Your task to perform on an android device: turn on improve location accuracy Image 0: 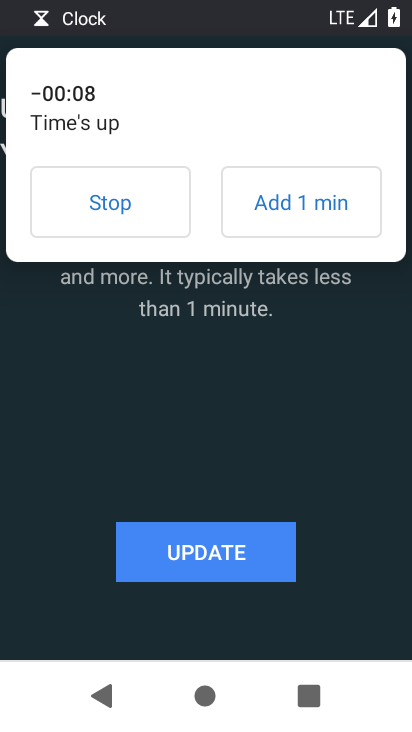
Step 0: press home button
Your task to perform on an android device: turn on improve location accuracy Image 1: 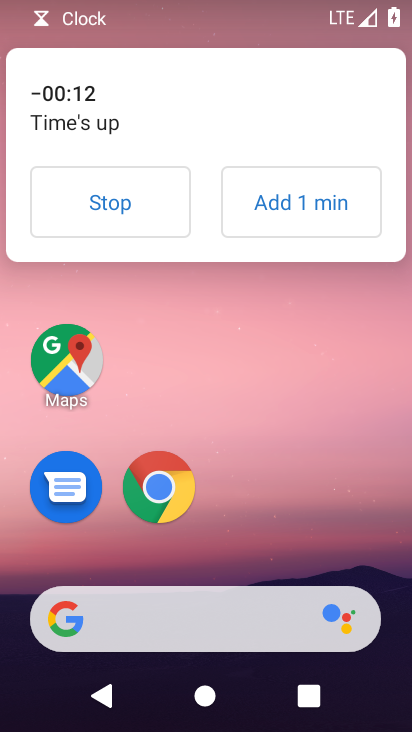
Step 1: drag from (378, 525) to (381, 176)
Your task to perform on an android device: turn on improve location accuracy Image 2: 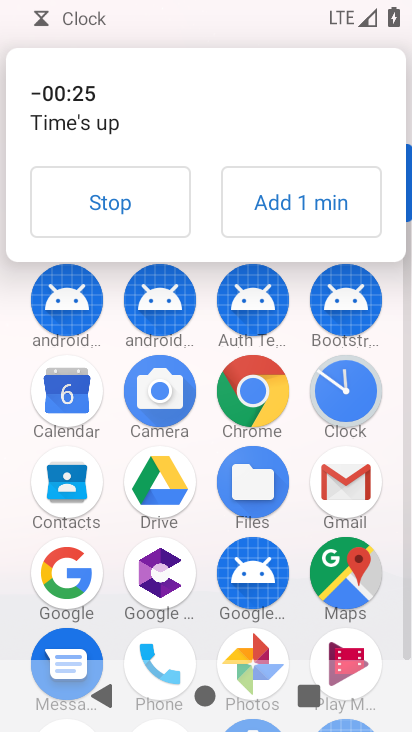
Step 2: drag from (206, 521) to (213, 304)
Your task to perform on an android device: turn on improve location accuracy Image 3: 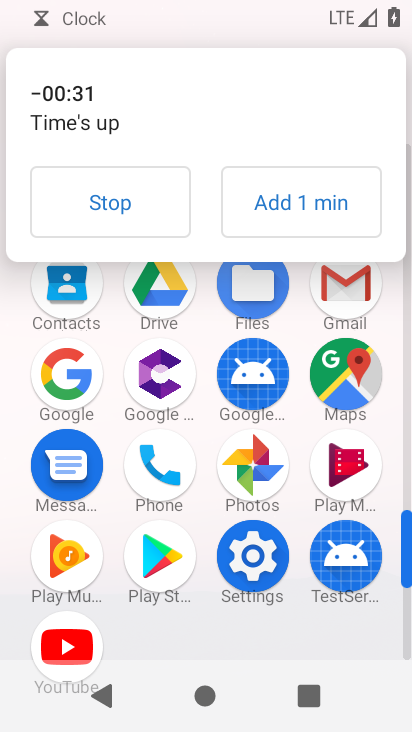
Step 3: click (262, 557)
Your task to perform on an android device: turn on improve location accuracy Image 4: 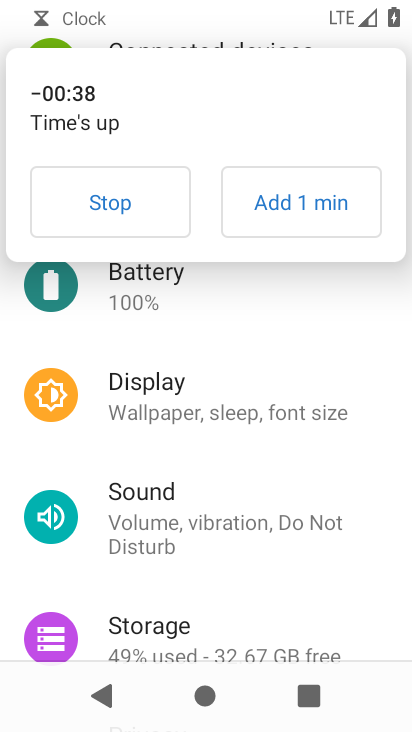
Step 4: drag from (330, 575) to (362, 400)
Your task to perform on an android device: turn on improve location accuracy Image 5: 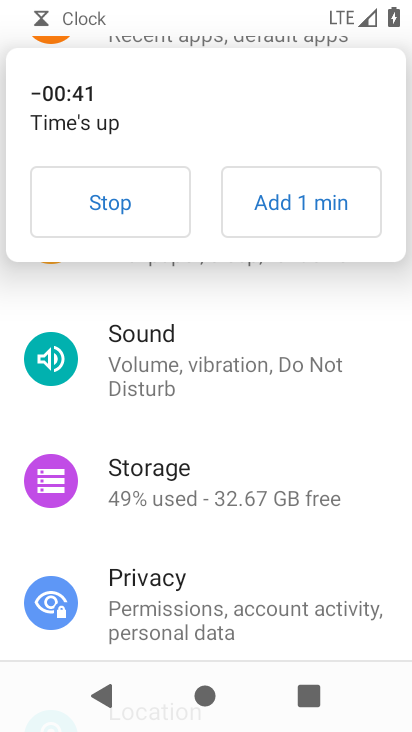
Step 5: drag from (344, 570) to (354, 439)
Your task to perform on an android device: turn on improve location accuracy Image 6: 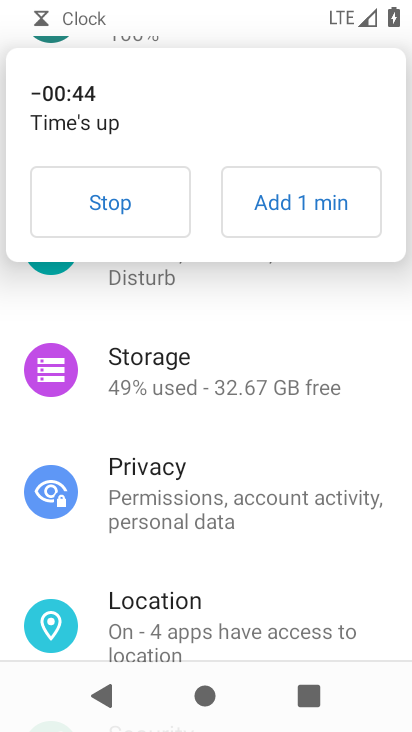
Step 6: drag from (344, 582) to (345, 464)
Your task to perform on an android device: turn on improve location accuracy Image 7: 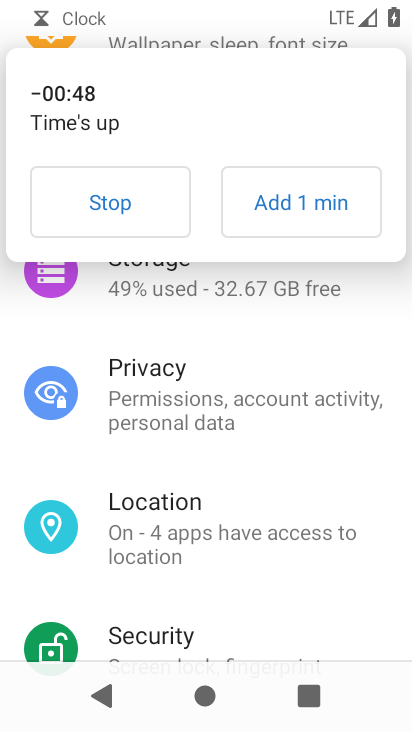
Step 7: drag from (344, 595) to (340, 453)
Your task to perform on an android device: turn on improve location accuracy Image 8: 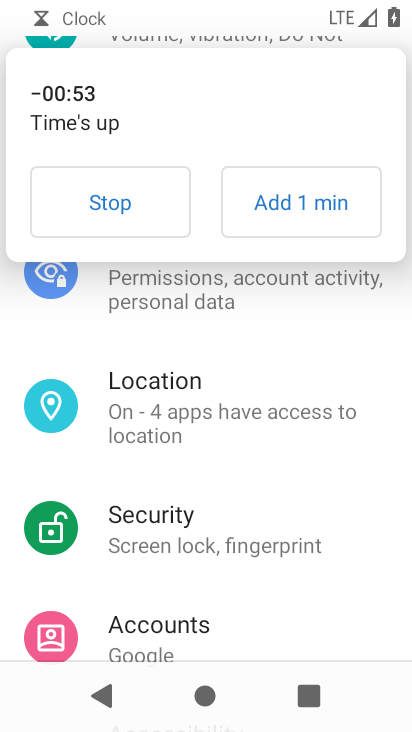
Step 8: click (312, 406)
Your task to perform on an android device: turn on improve location accuracy Image 9: 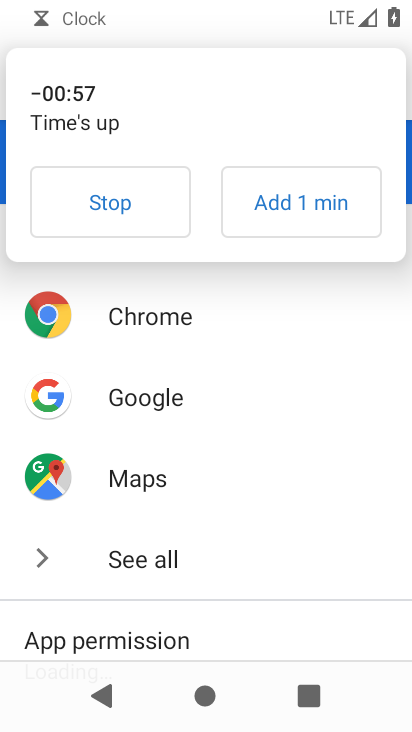
Step 9: drag from (315, 565) to (316, 339)
Your task to perform on an android device: turn on improve location accuracy Image 10: 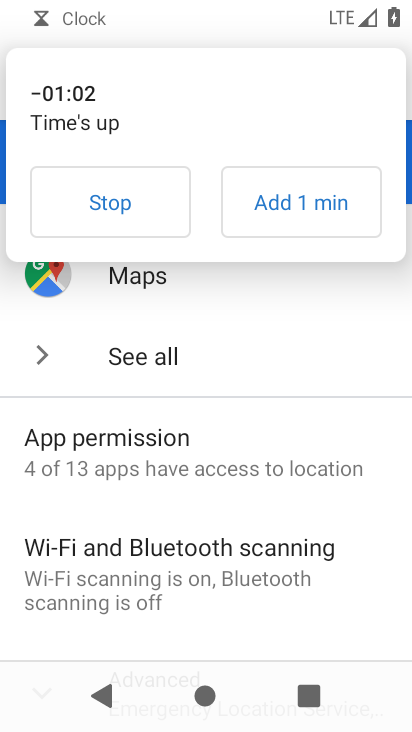
Step 10: drag from (348, 596) to (354, 390)
Your task to perform on an android device: turn on improve location accuracy Image 11: 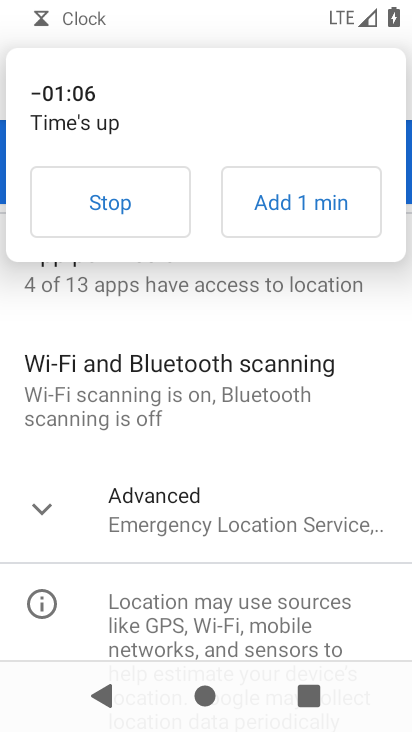
Step 11: click (220, 526)
Your task to perform on an android device: turn on improve location accuracy Image 12: 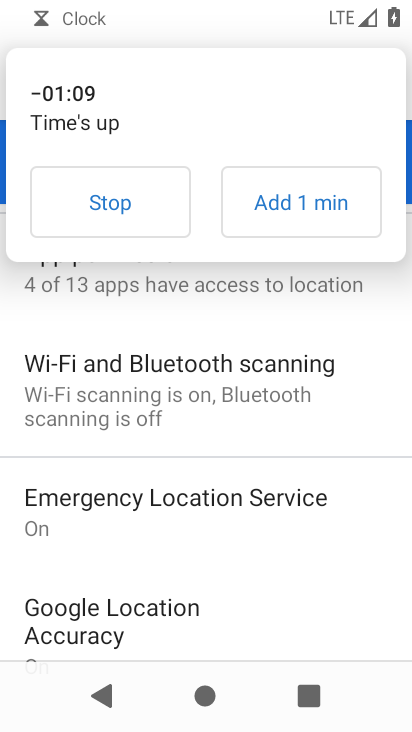
Step 12: drag from (318, 573) to (359, 382)
Your task to perform on an android device: turn on improve location accuracy Image 13: 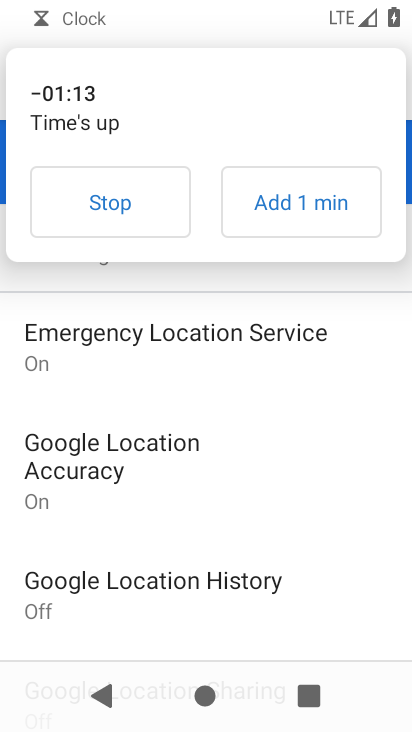
Step 13: drag from (382, 515) to (362, 363)
Your task to perform on an android device: turn on improve location accuracy Image 14: 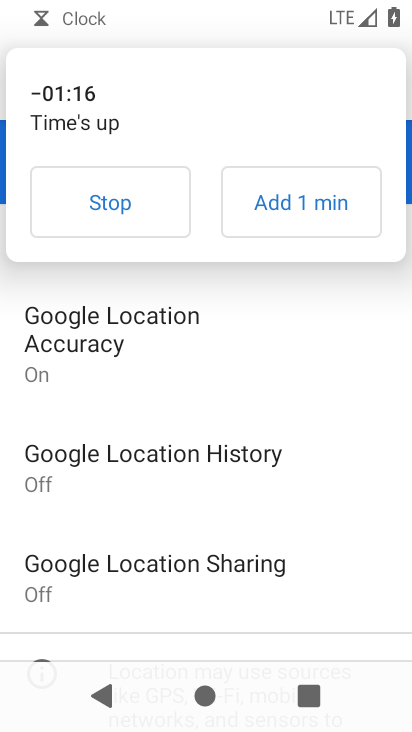
Step 14: drag from (347, 565) to (348, 410)
Your task to perform on an android device: turn on improve location accuracy Image 15: 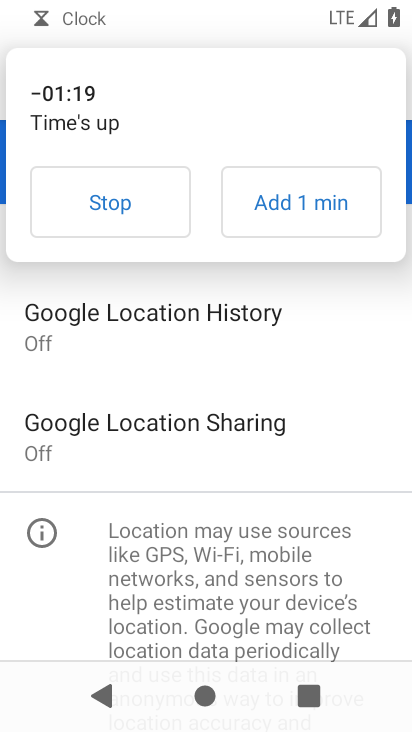
Step 15: drag from (341, 385) to (357, 542)
Your task to perform on an android device: turn on improve location accuracy Image 16: 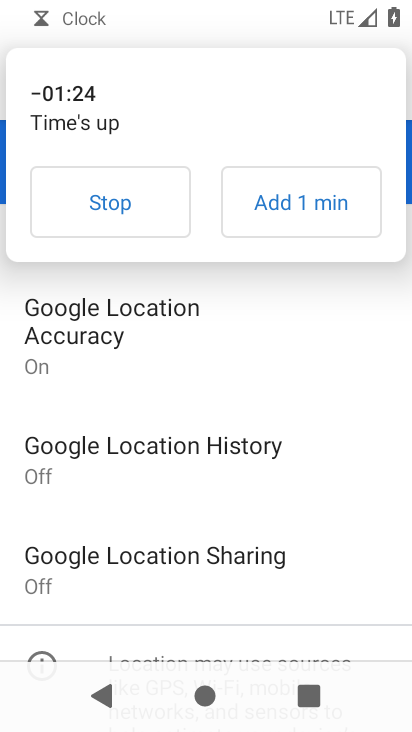
Step 16: click (123, 320)
Your task to perform on an android device: turn on improve location accuracy Image 17: 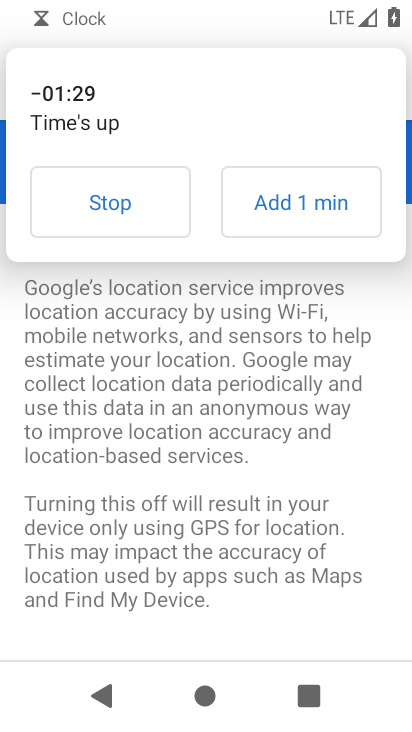
Step 17: click (139, 223)
Your task to perform on an android device: turn on improve location accuracy Image 18: 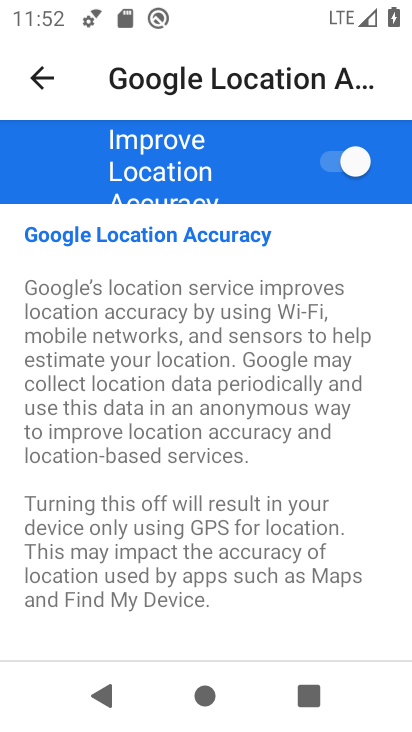
Step 18: task complete